Your task to perform on an android device: Set the phone to "Do not disturb". Image 0: 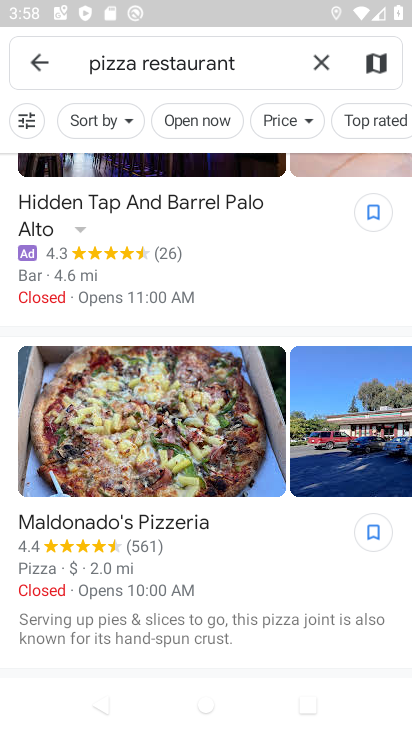
Step 0: press home button
Your task to perform on an android device: Set the phone to "Do not disturb". Image 1: 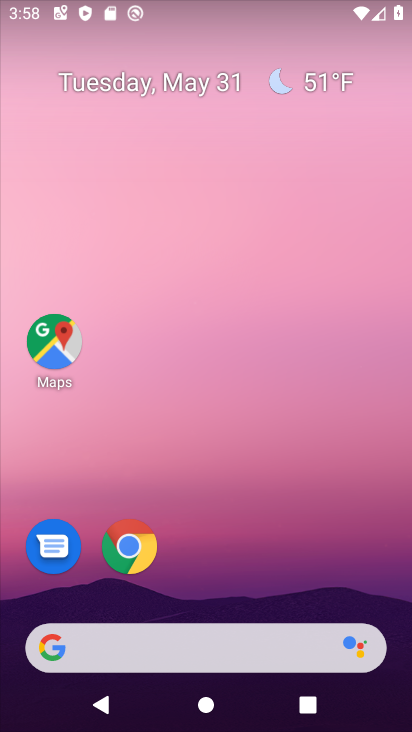
Step 1: drag from (280, 574) to (286, 91)
Your task to perform on an android device: Set the phone to "Do not disturb". Image 2: 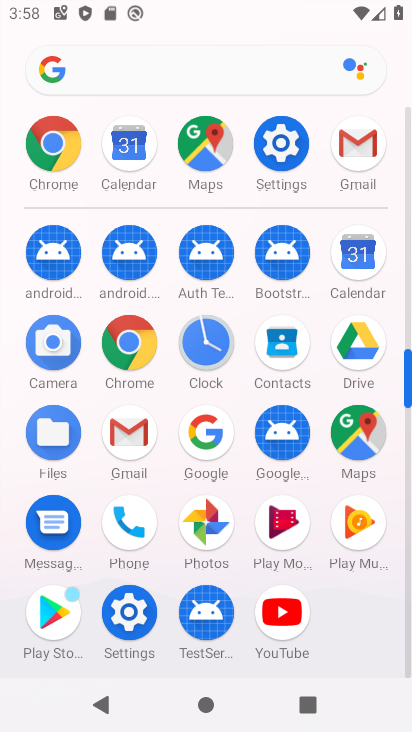
Step 2: click (284, 165)
Your task to perform on an android device: Set the phone to "Do not disturb". Image 3: 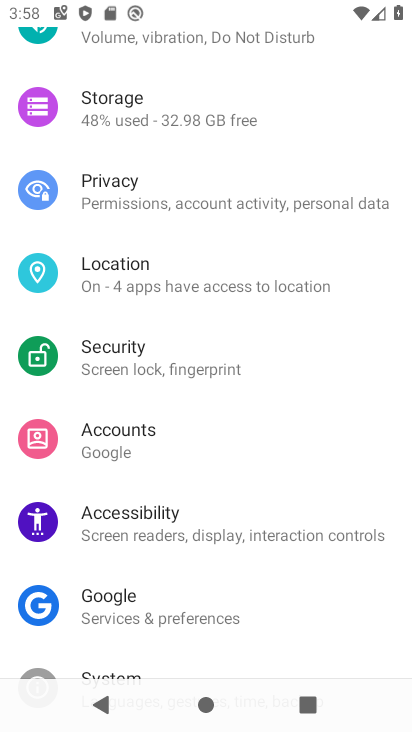
Step 3: drag from (219, 145) to (139, 570)
Your task to perform on an android device: Set the phone to "Do not disturb". Image 4: 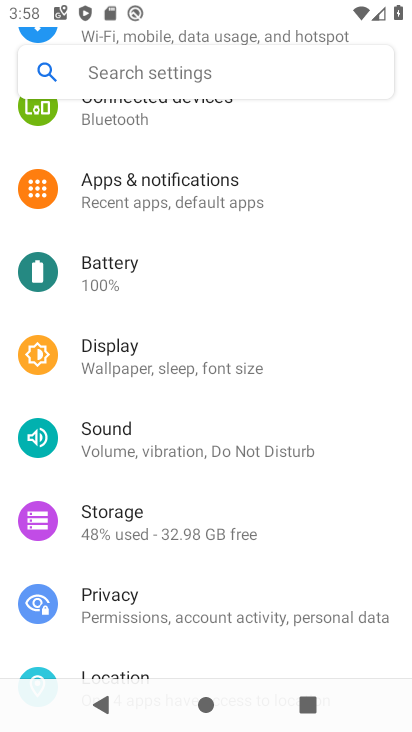
Step 4: drag from (189, 245) to (121, 580)
Your task to perform on an android device: Set the phone to "Do not disturb". Image 5: 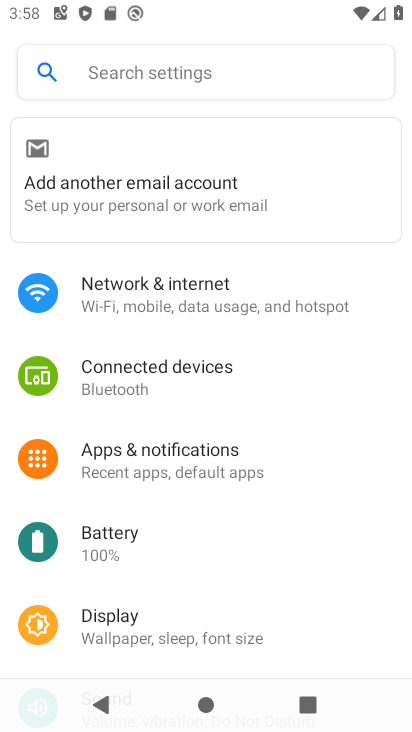
Step 5: drag from (151, 599) to (188, 303)
Your task to perform on an android device: Set the phone to "Do not disturb". Image 6: 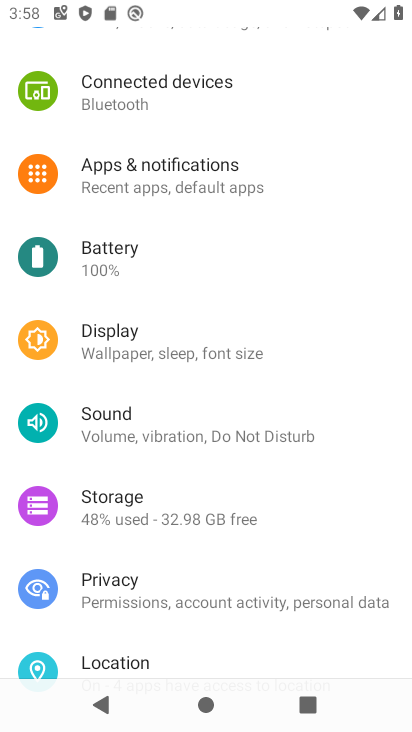
Step 6: click (120, 443)
Your task to perform on an android device: Set the phone to "Do not disturb". Image 7: 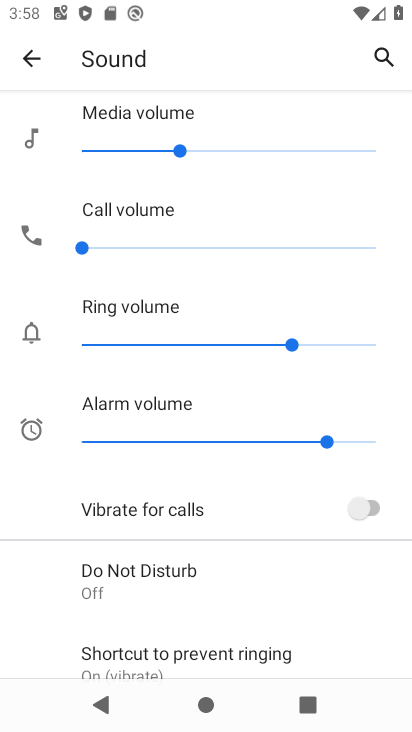
Step 7: drag from (183, 545) to (229, 330)
Your task to perform on an android device: Set the phone to "Do not disturb". Image 8: 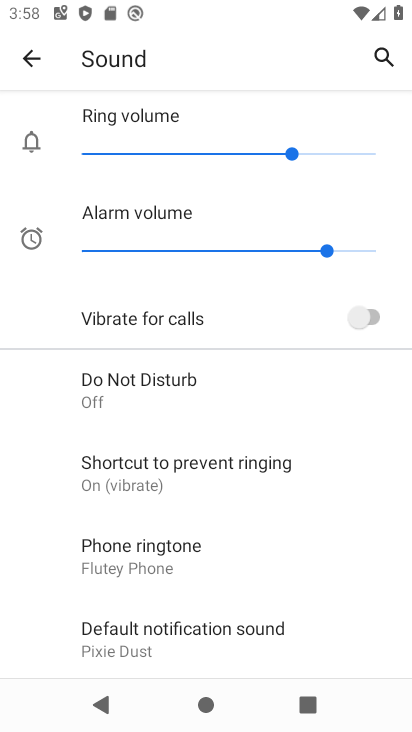
Step 8: click (142, 404)
Your task to perform on an android device: Set the phone to "Do not disturb". Image 9: 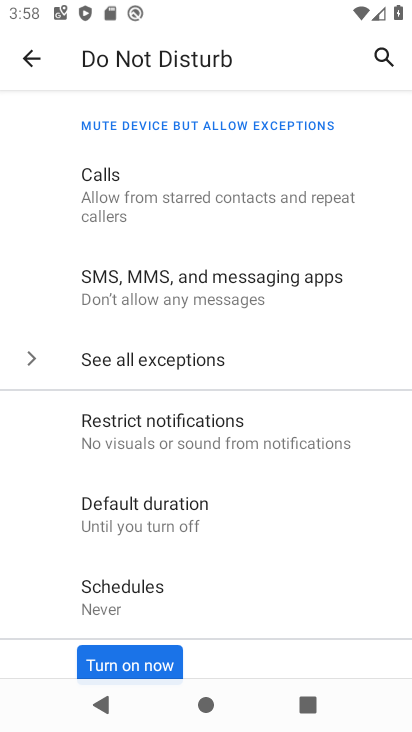
Step 9: click (134, 668)
Your task to perform on an android device: Set the phone to "Do not disturb". Image 10: 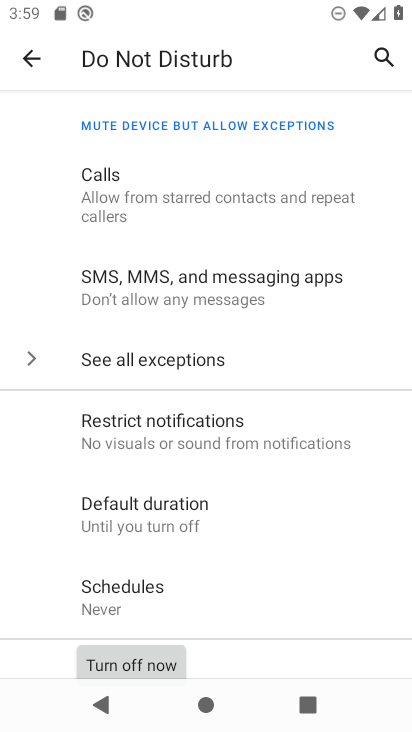
Step 10: task complete